Your task to perform on an android device: check out phone information Image 0: 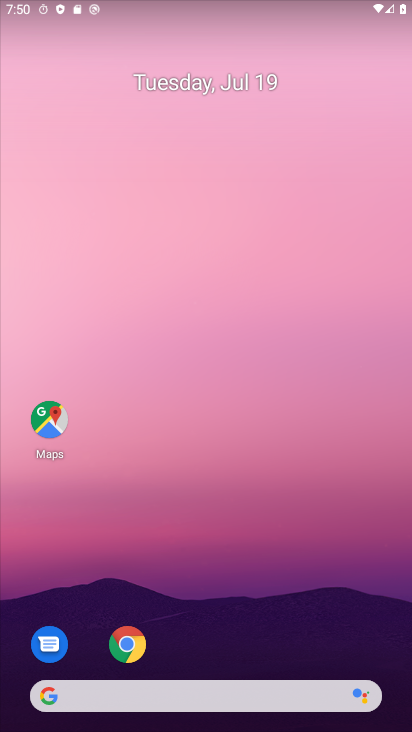
Step 0: drag from (27, 708) to (341, 71)
Your task to perform on an android device: check out phone information Image 1: 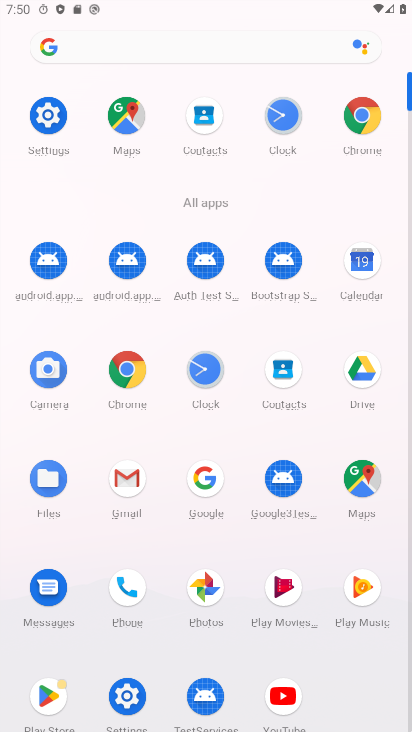
Step 1: click (137, 597)
Your task to perform on an android device: check out phone information Image 2: 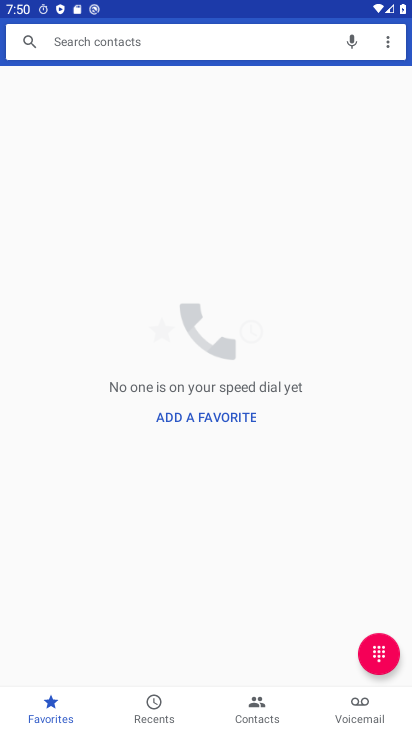
Step 2: click (157, 711)
Your task to perform on an android device: check out phone information Image 3: 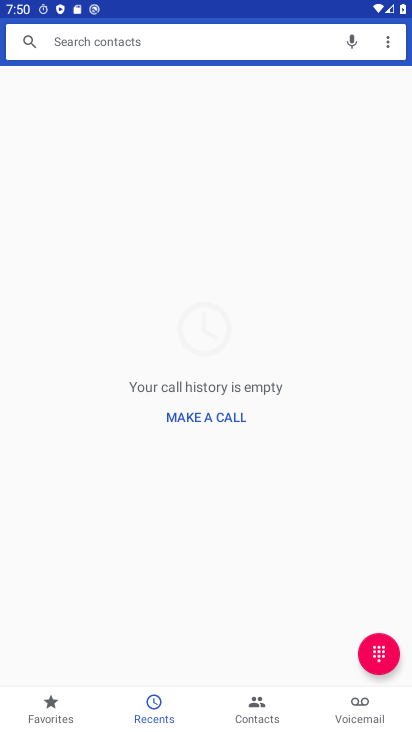
Step 3: click (264, 707)
Your task to perform on an android device: check out phone information Image 4: 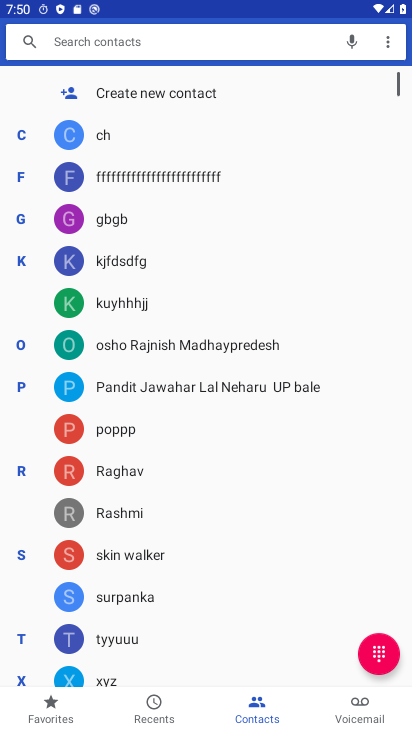
Step 4: task complete